Your task to perform on an android device: allow cookies in the chrome app Image 0: 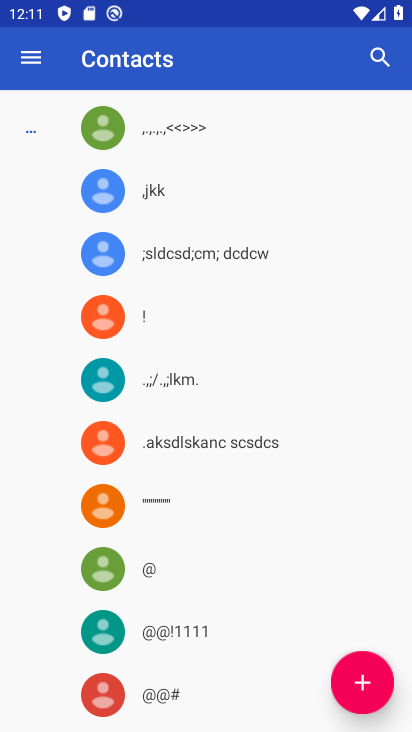
Step 0: press home button
Your task to perform on an android device: allow cookies in the chrome app Image 1: 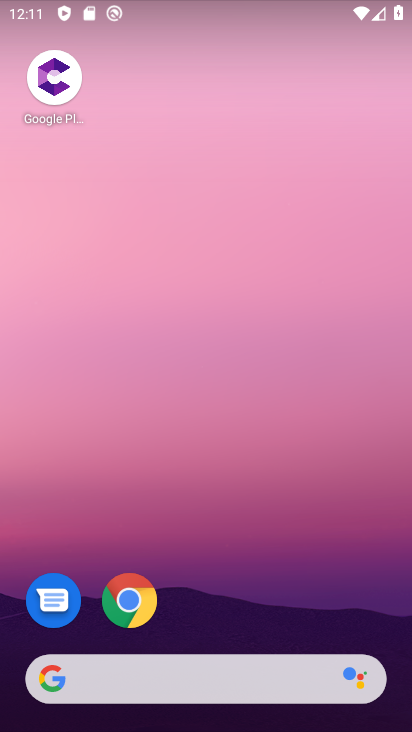
Step 1: click (135, 604)
Your task to perform on an android device: allow cookies in the chrome app Image 2: 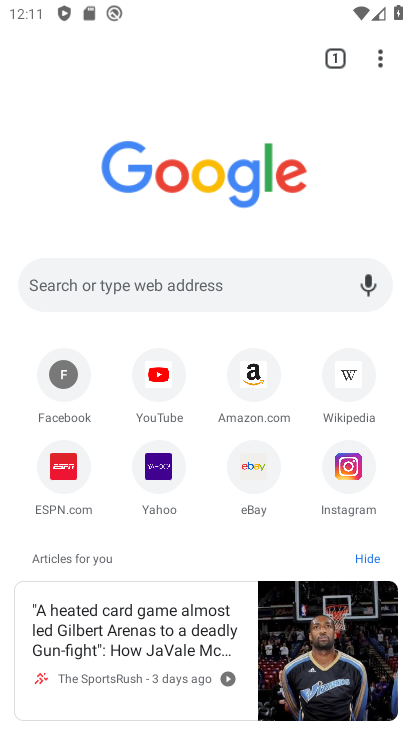
Step 2: click (381, 60)
Your task to perform on an android device: allow cookies in the chrome app Image 3: 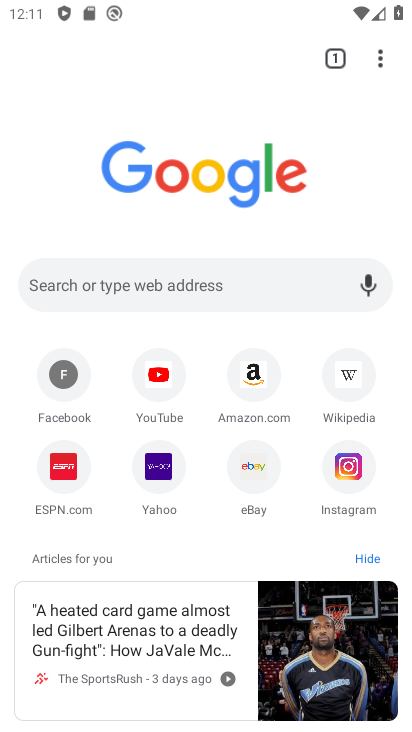
Step 3: drag from (378, 59) to (155, 490)
Your task to perform on an android device: allow cookies in the chrome app Image 4: 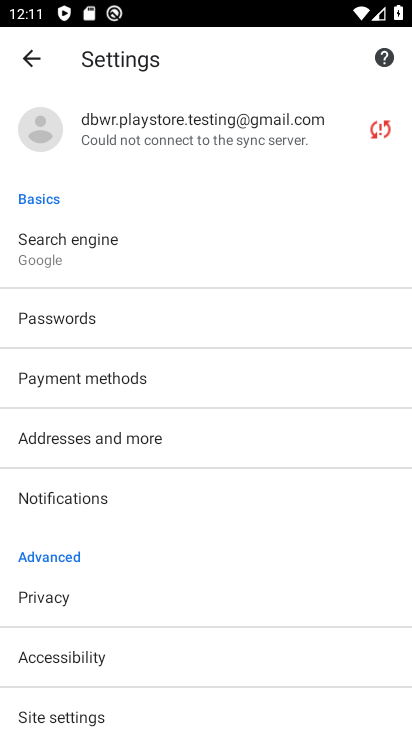
Step 4: click (81, 710)
Your task to perform on an android device: allow cookies in the chrome app Image 5: 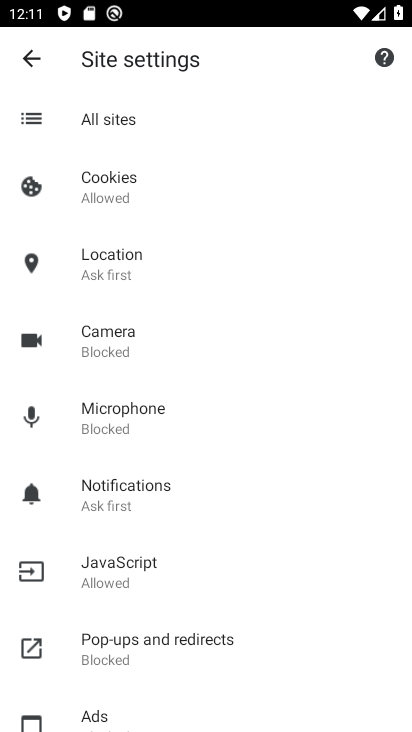
Step 5: click (105, 186)
Your task to perform on an android device: allow cookies in the chrome app Image 6: 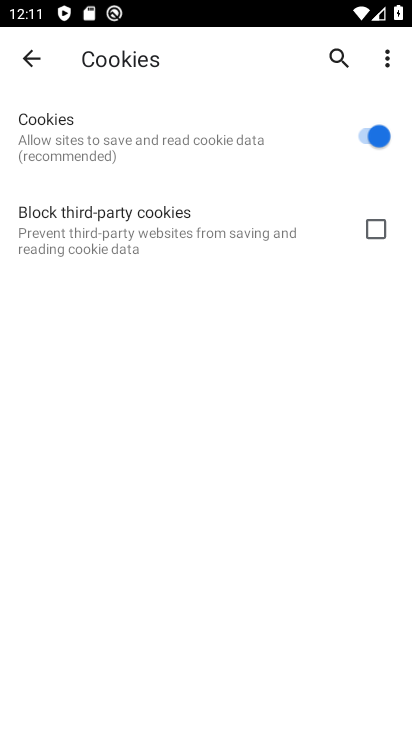
Step 6: task complete